Your task to perform on an android device: add a label to a message in the gmail app Image 0: 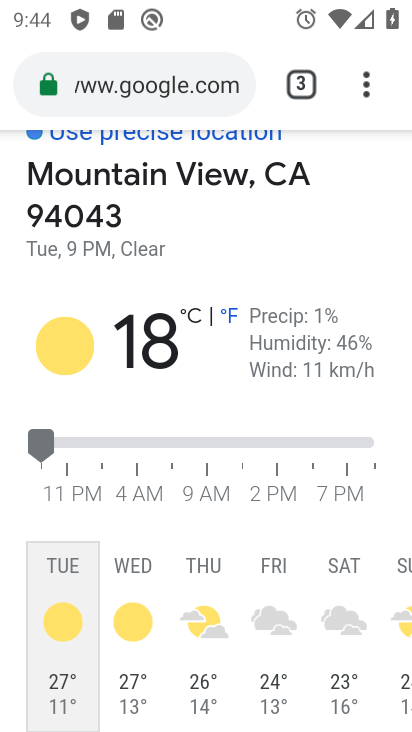
Step 0: press home button
Your task to perform on an android device: add a label to a message in the gmail app Image 1: 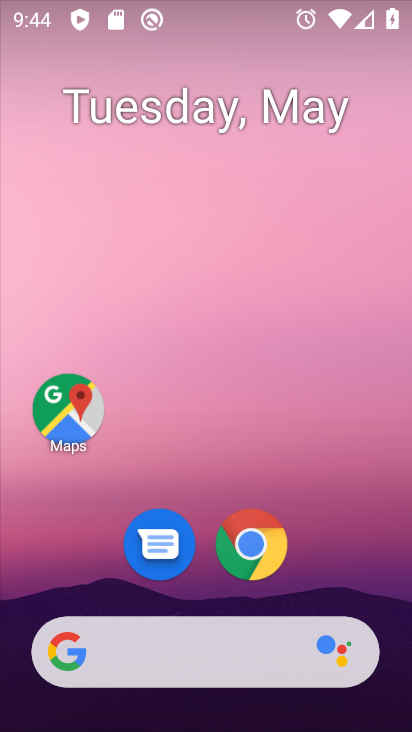
Step 1: drag from (344, 452) to (313, 131)
Your task to perform on an android device: add a label to a message in the gmail app Image 2: 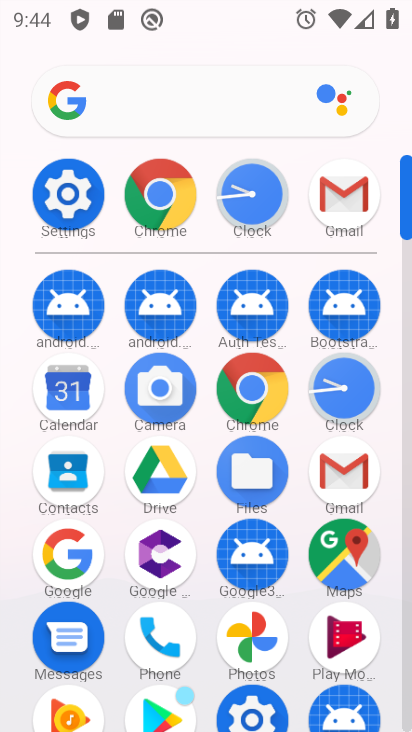
Step 2: click (345, 478)
Your task to perform on an android device: add a label to a message in the gmail app Image 3: 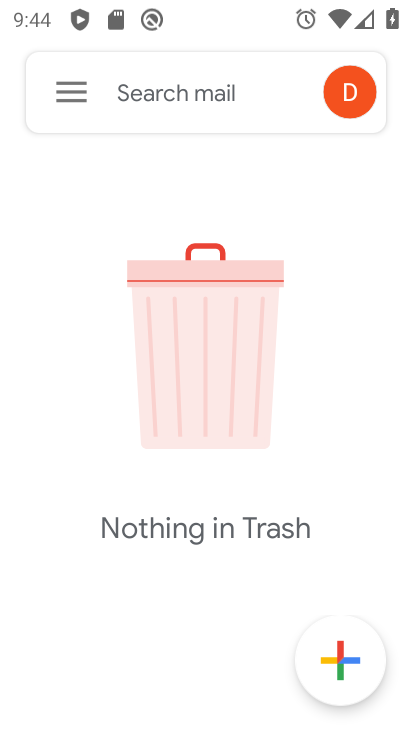
Step 3: click (70, 84)
Your task to perform on an android device: add a label to a message in the gmail app Image 4: 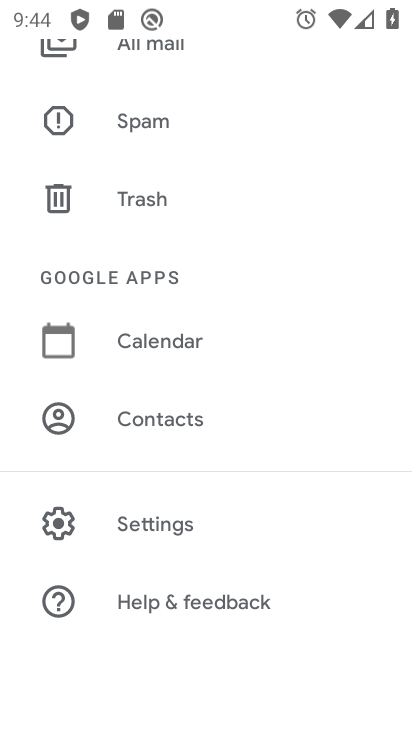
Step 4: drag from (175, 245) to (211, 475)
Your task to perform on an android device: add a label to a message in the gmail app Image 5: 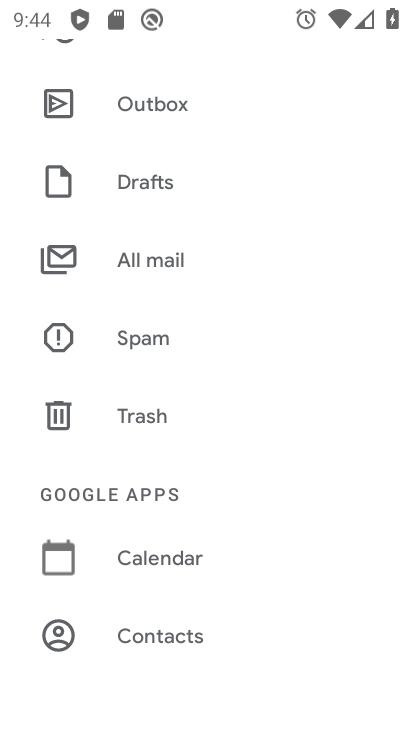
Step 5: click (193, 274)
Your task to perform on an android device: add a label to a message in the gmail app Image 6: 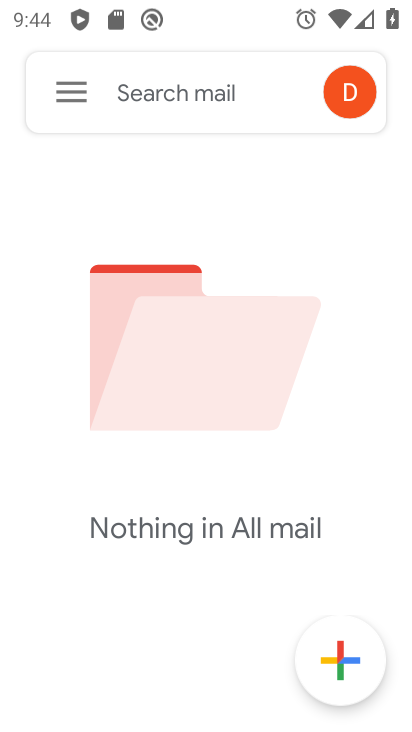
Step 6: task complete